Your task to perform on an android device: Go to Google maps Image 0: 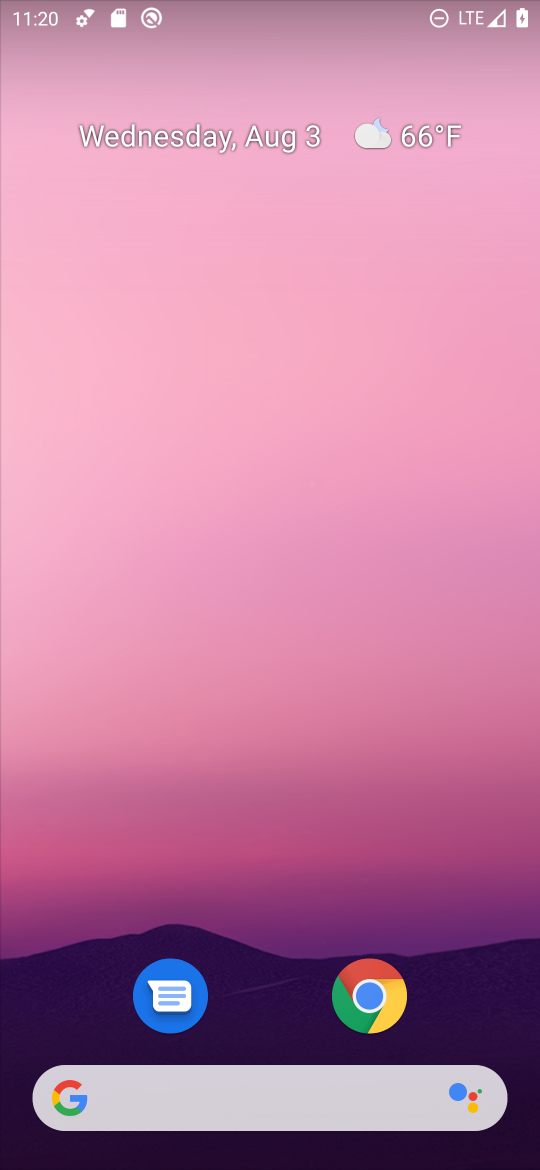
Step 0: drag from (370, 481) to (365, 0)
Your task to perform on an android device: Go to Google maps Image 1: 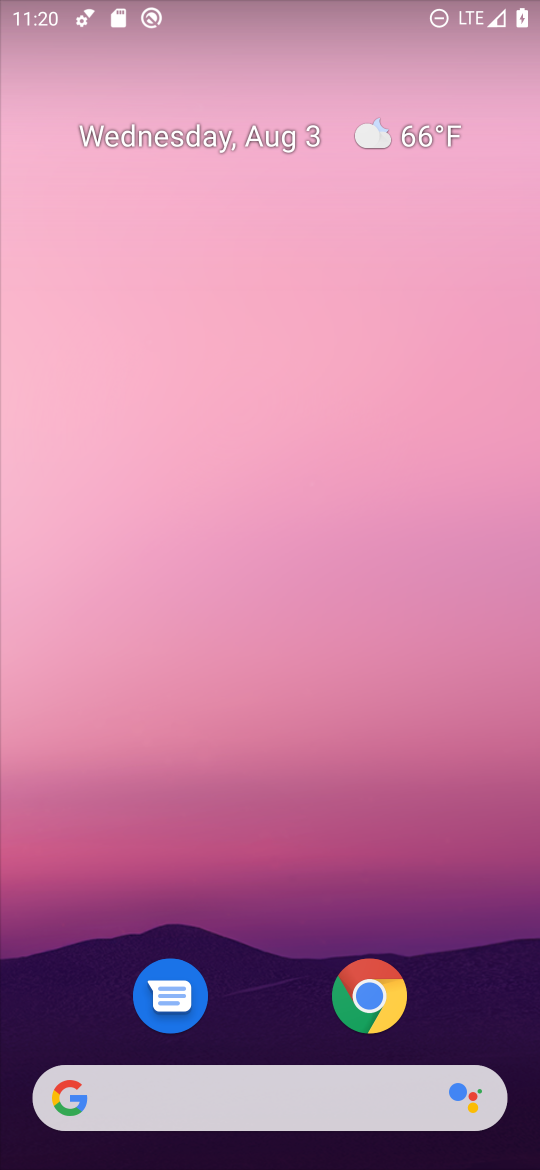
Step 1: drag from (254, 1006) to (288, 0)
Your task to perform on an android device: Go to Google maps Image 2: 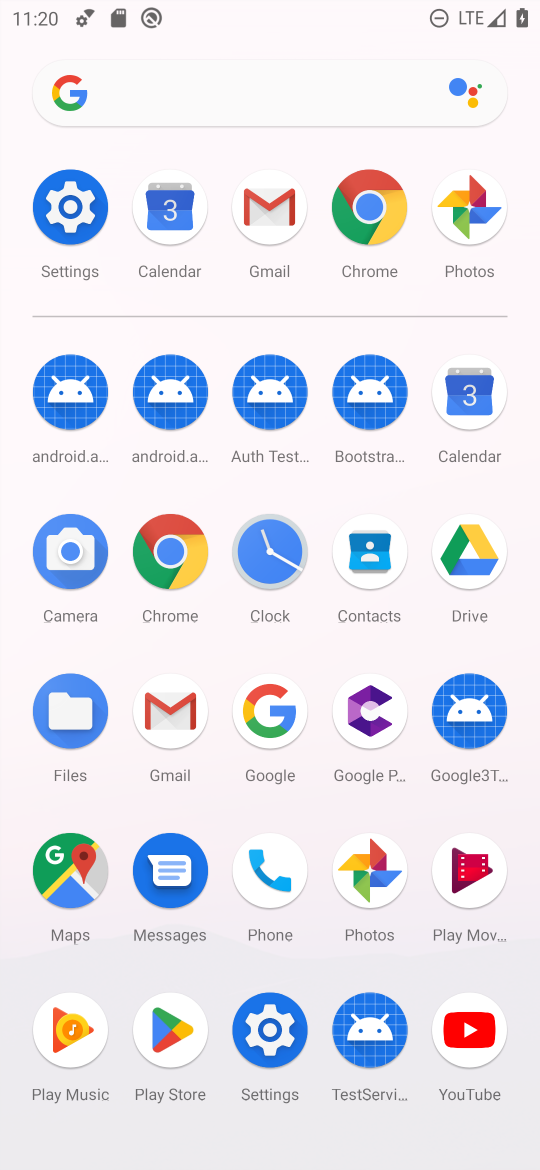
Step 2: click (76, 872)
Your task to perform on an android device: Go to Google maps Image 3: 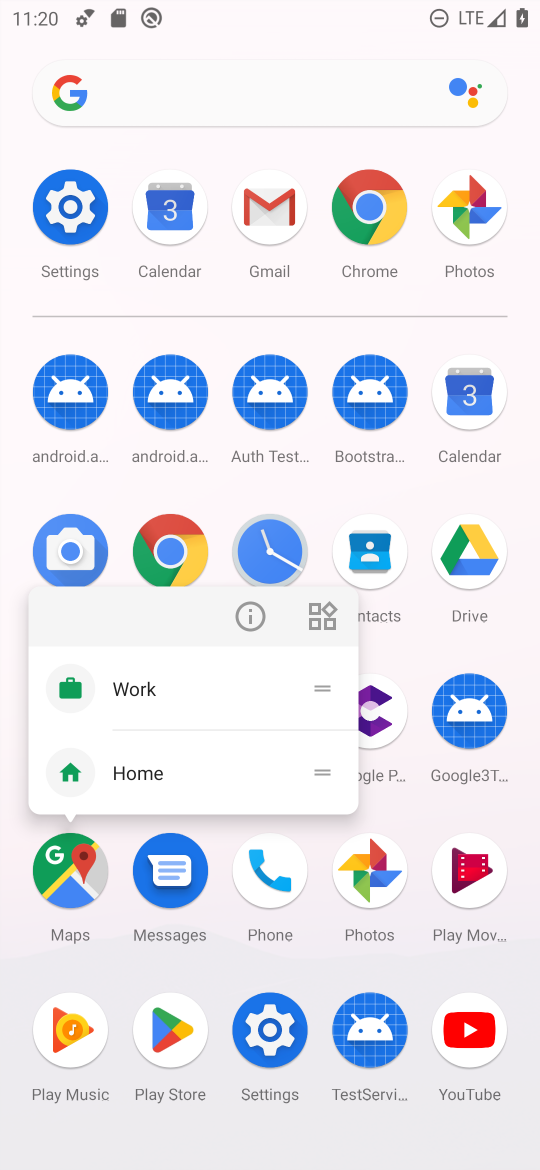
Step 3: click (76, 870)
Your task to perform on an android device: Go to Google maps Image 4: 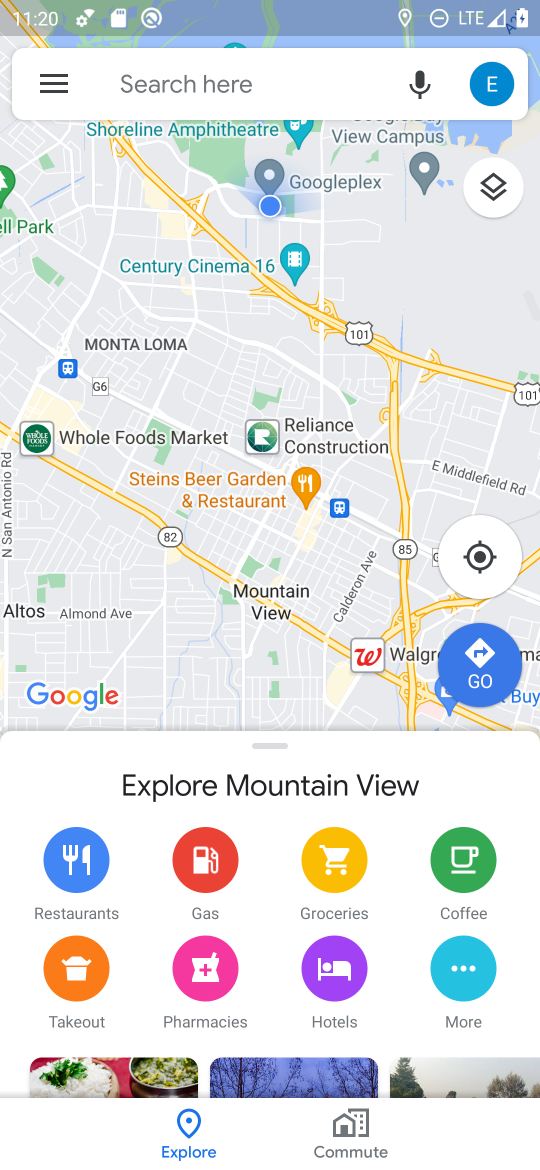
Step 4: task complete